Your task to perform on an android device: turn pop-ups off in chrome Image 0: 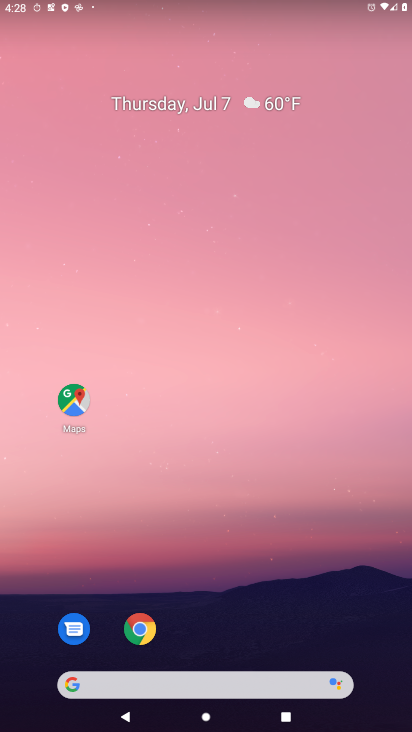
Step 0: drag from (197, 462) to (179, 54)
Your task to perform on an android device: turn pop-ups off in chrome Image 1: 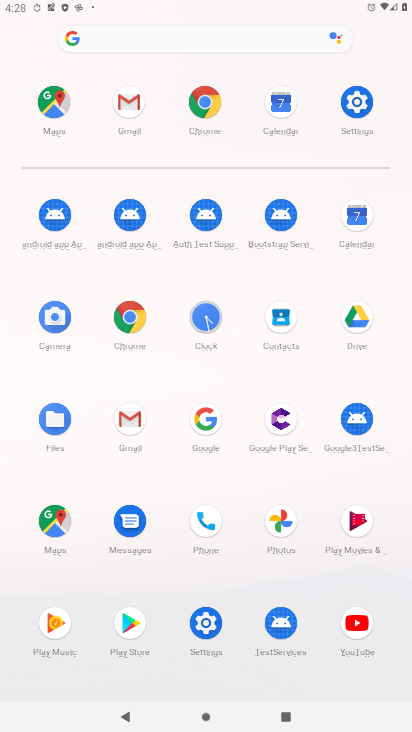
Step 1: click (195, 106)
Your task to perform on an android device: turn pop-ups off in chrome Image 2: 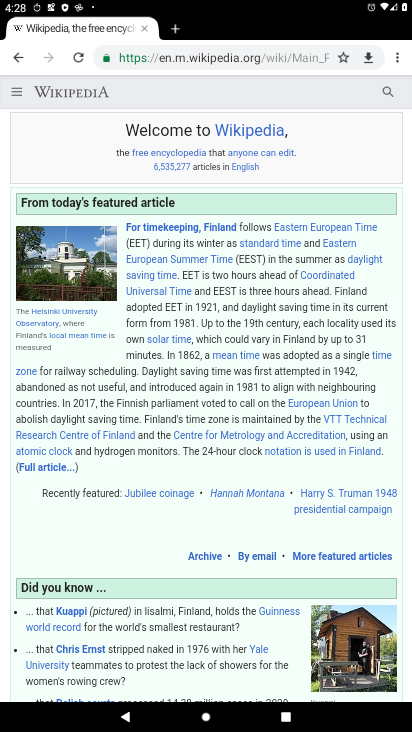
Step 2: click (396, 57)
Your task to perform on an android device: turn pop-ups off in chrome Image 3: 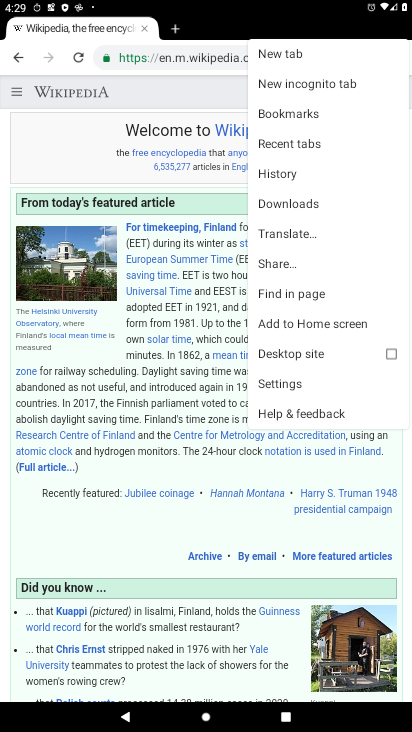
Step 3: click (281, 386)
Your task to perform on an android device: turn pop-ups off in chrome Image 4: 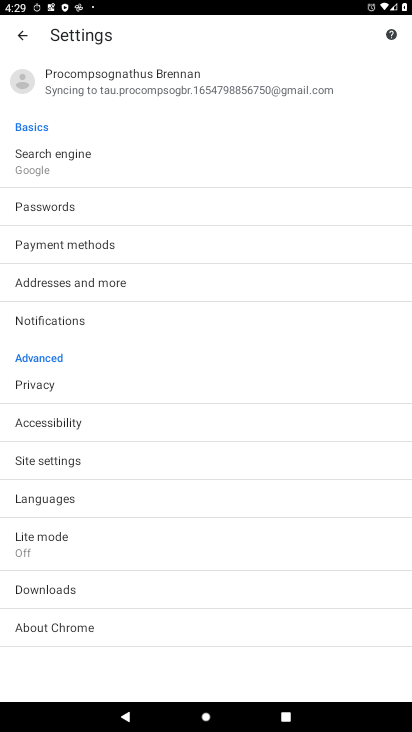
Step 4: click (43, 463)
Your task to perform on an android device: turn pop-ups off in chrome Image 5: 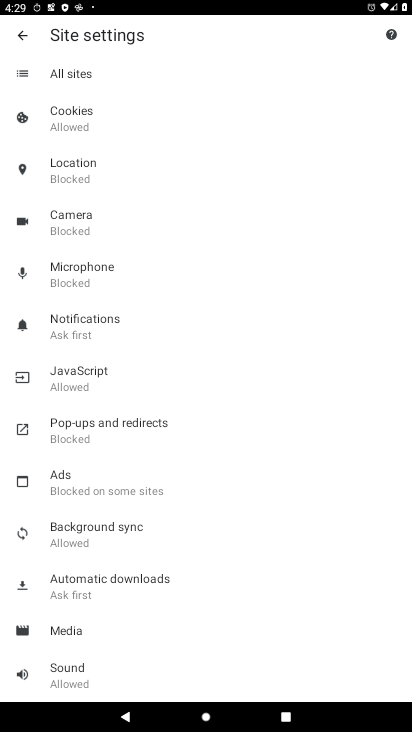
Step 5: click (110, 433)
Your task to perform on an android device: turn pop-ups off in chrome Image 6: 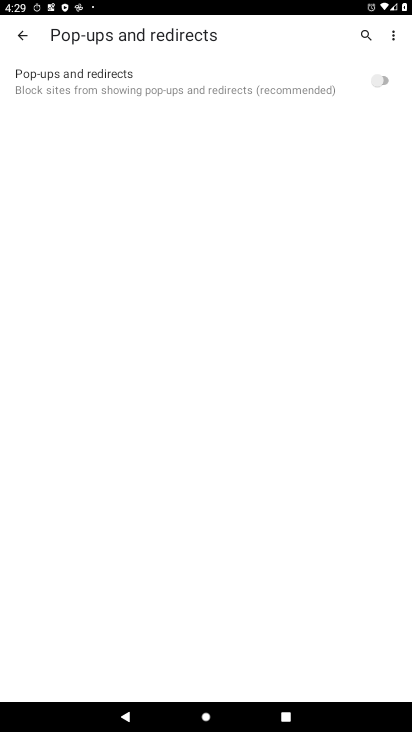
Step 6: task complete